Your task to perform on an android device: Show me the alarms in the clock app Image 0: 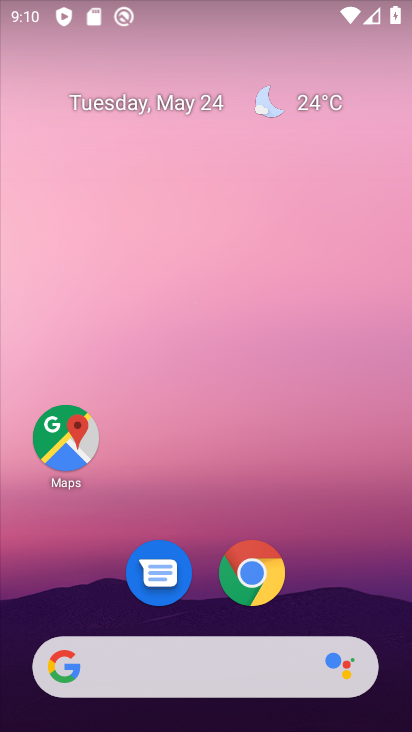
Step 0: drag from (383, 616) to (338, 151)
Your task to perform on an android device: Show me the alarms in the clock app Image 1: 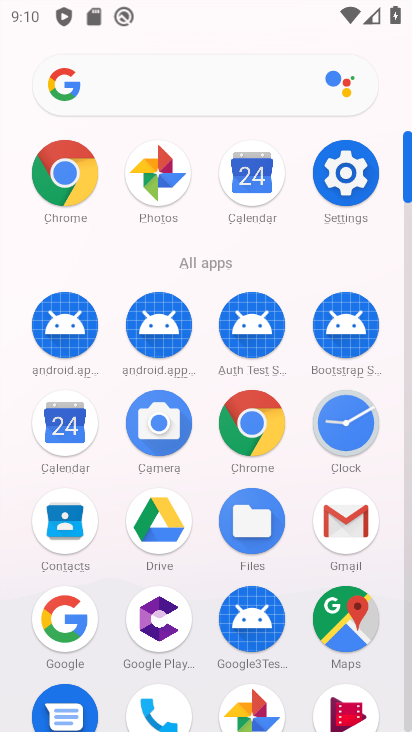
Step 1: click (344, 423)
Your task to perform on an android device: Show me the alarms in the clock app Image 2: 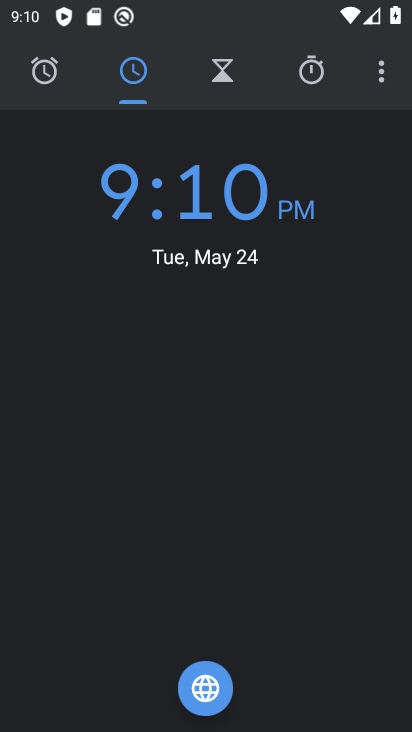
Step 2: click (39, 71)
Your task to perform on an android device: Show me the alarms in the clock app Image 3: 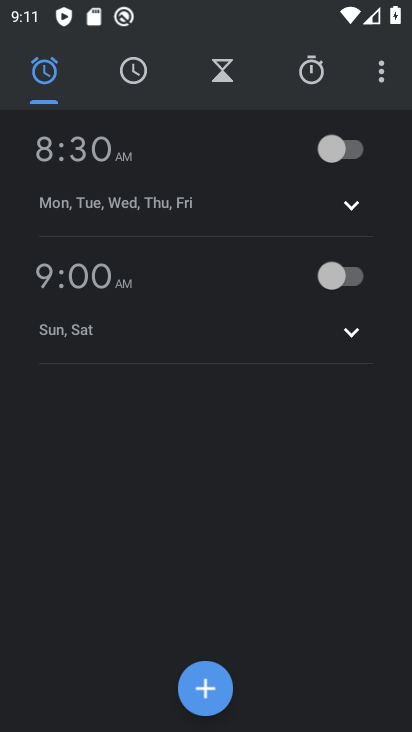
Step 3: task complete